Your task to perform on an android device: Add "usb-b" to the cart on ebay.com, then select checkout. Image 0: 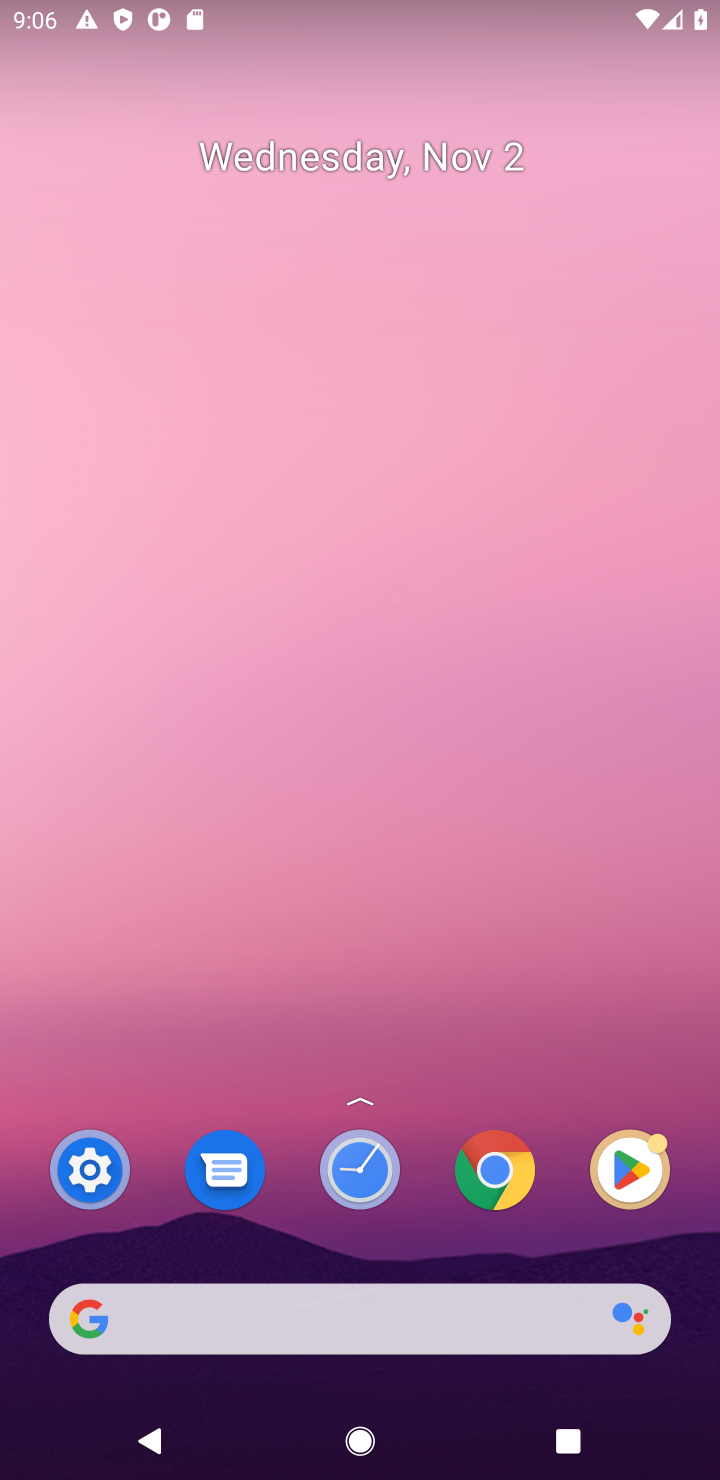
Step 0: click (521, 1186)
Your task to perform on an android device: Add "usb-b" to the cart on ebay.com, then select checkout. Image 1: 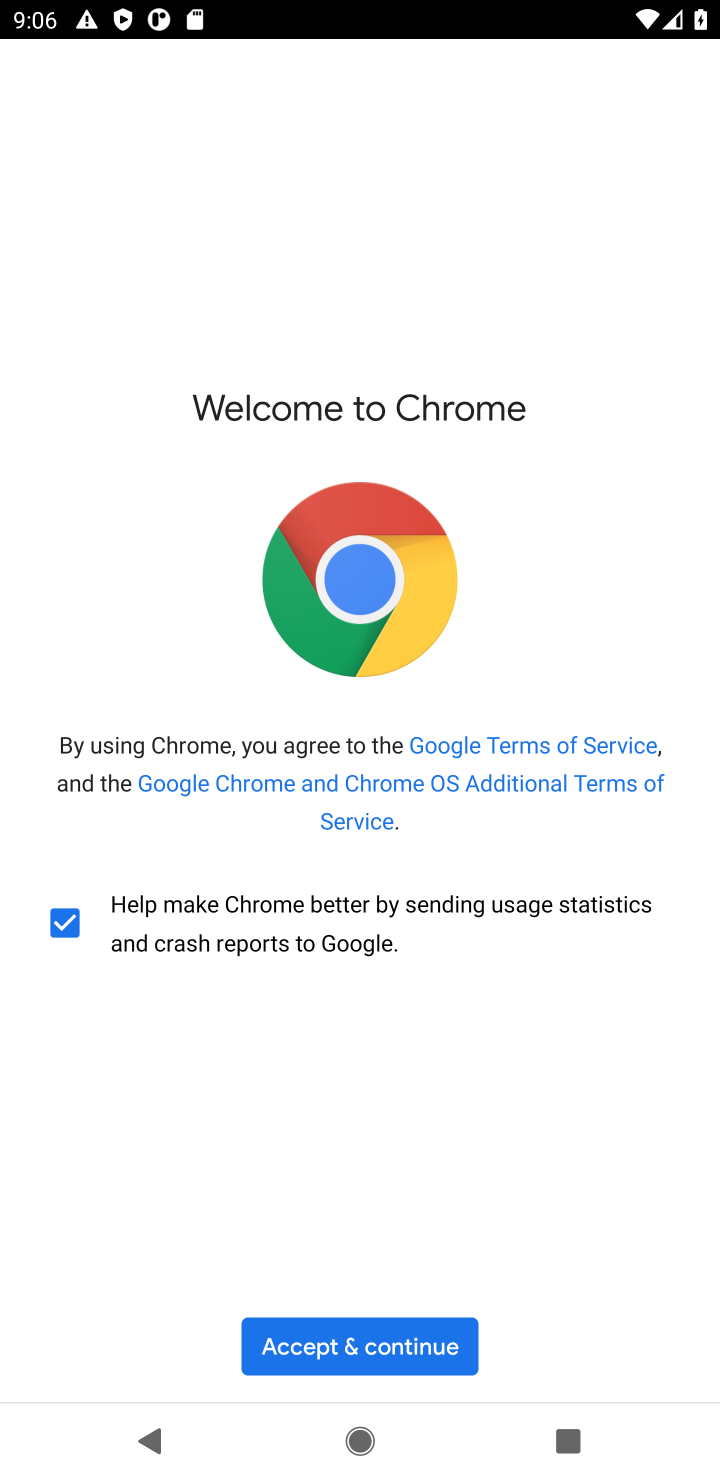
Step 1: click (390, 1361)
Your task to perform on an android device: Add "usb-b" to the cart on ebay.com, then select checkout. Image 2: 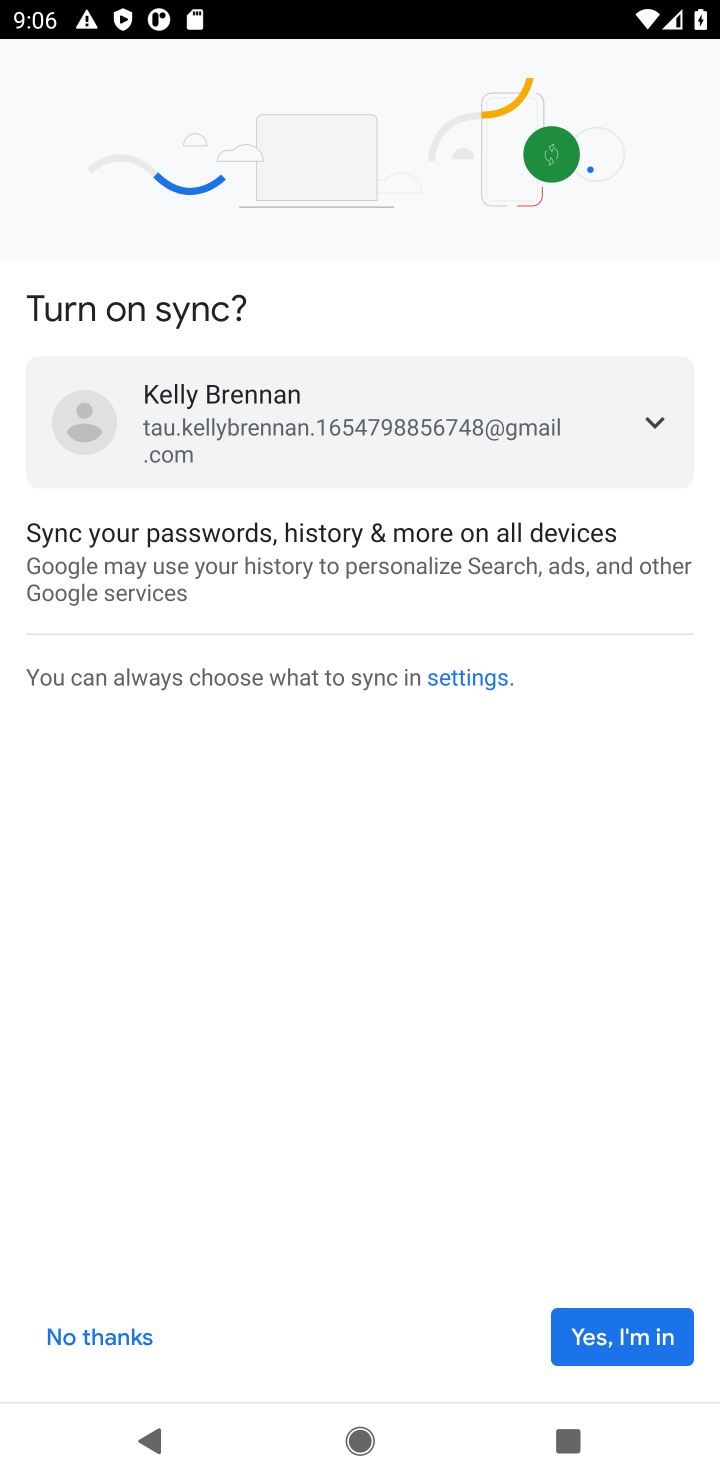
Step 2: click (621, 1337)
Your task to perform on an android device: Add "usb-b" to the cart on ebay.com, then select checkout. Image 3: 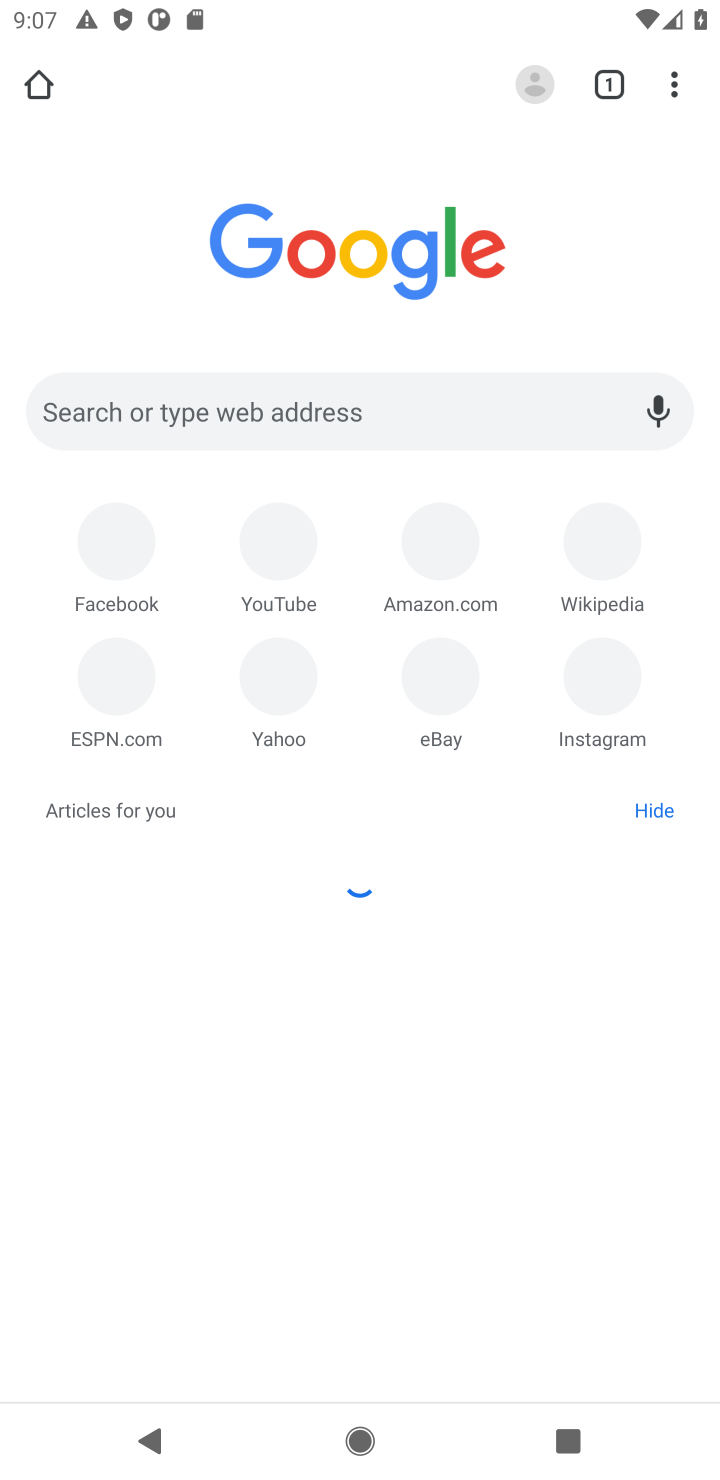
Step 3: click (393, 409)
Your task to perform on an android device: Add "usb-b" to the cart on ebay.com, then select checkout. Image 4: 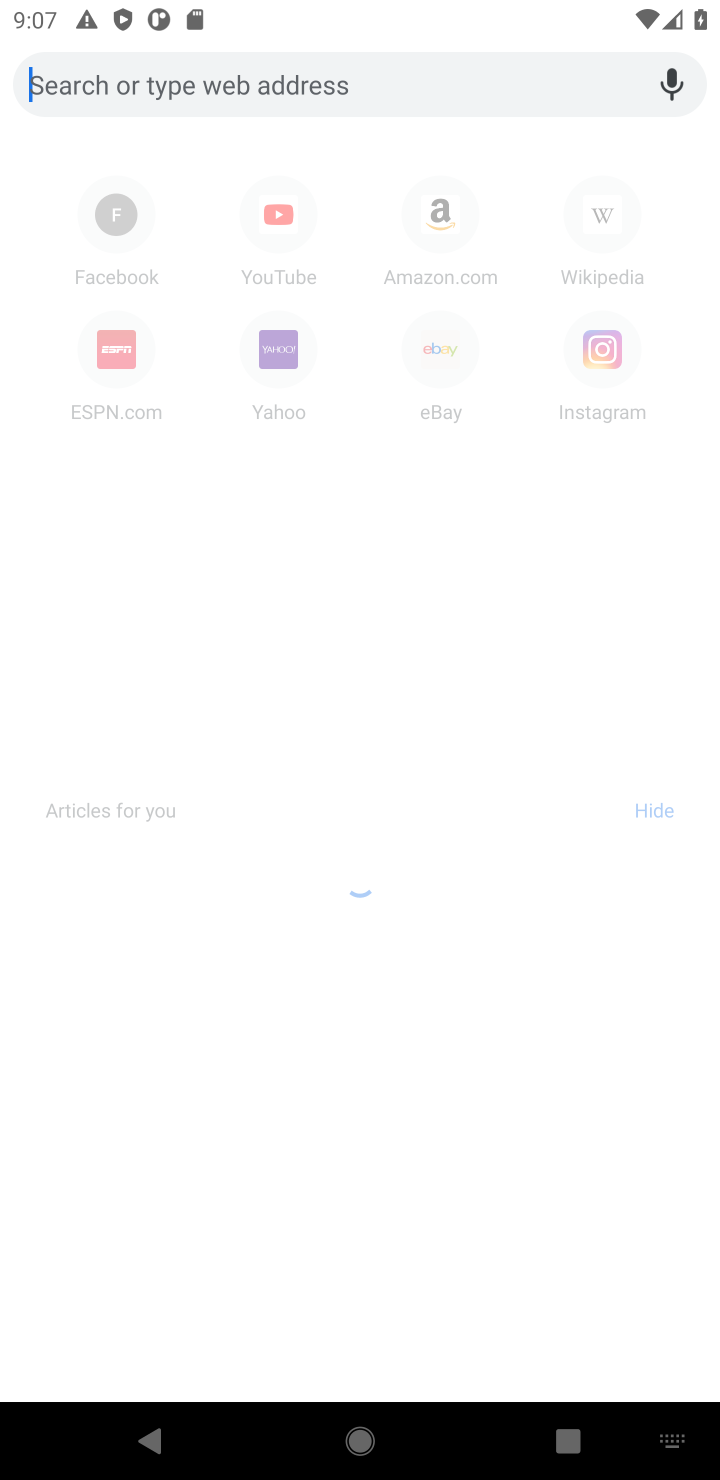
Step 4: type "ebay.com"
Your task to perform on an android device: Add "usb-b" to the cart on ebay.com, then select checkout. Image 5: 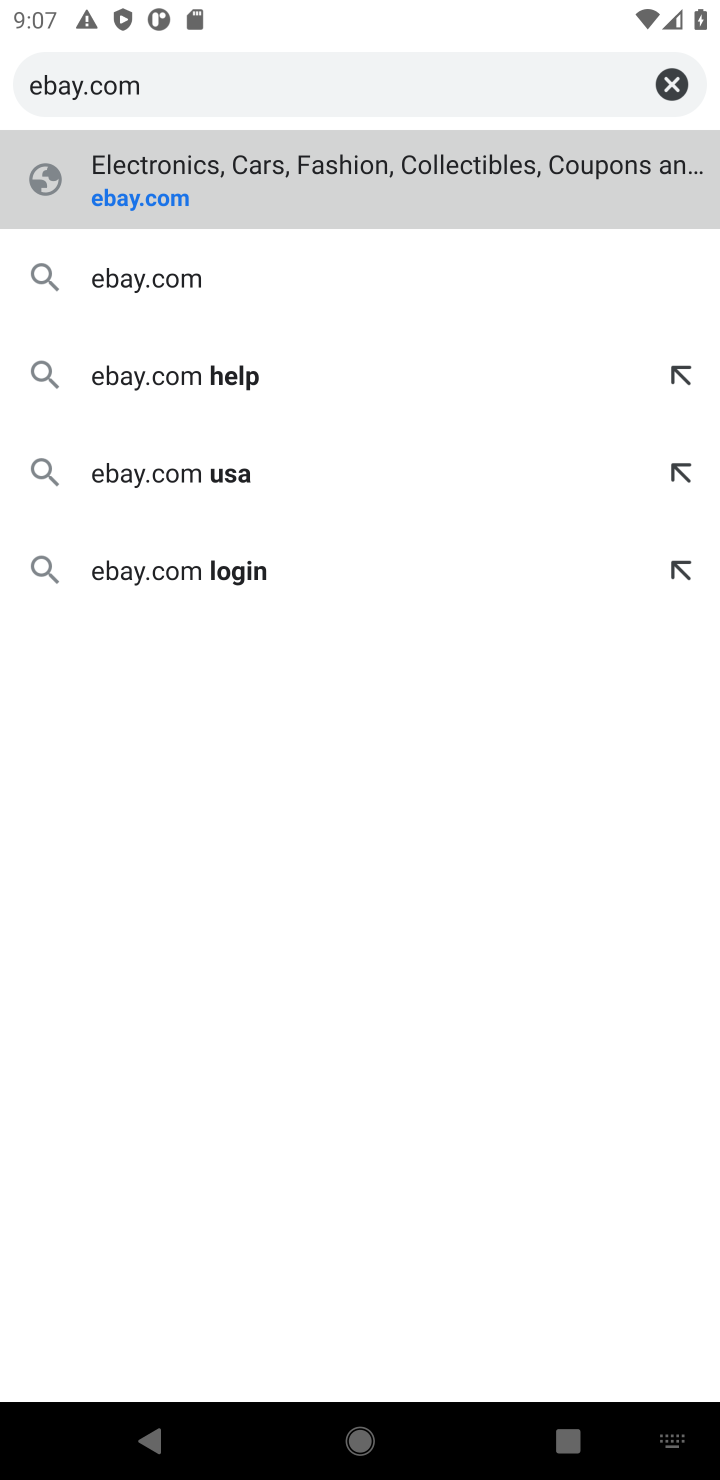
Step 5: press enter
Your task to perform on an android device: Add "usb-b" to the cart on ebay.com, then select checkout. Image 6: 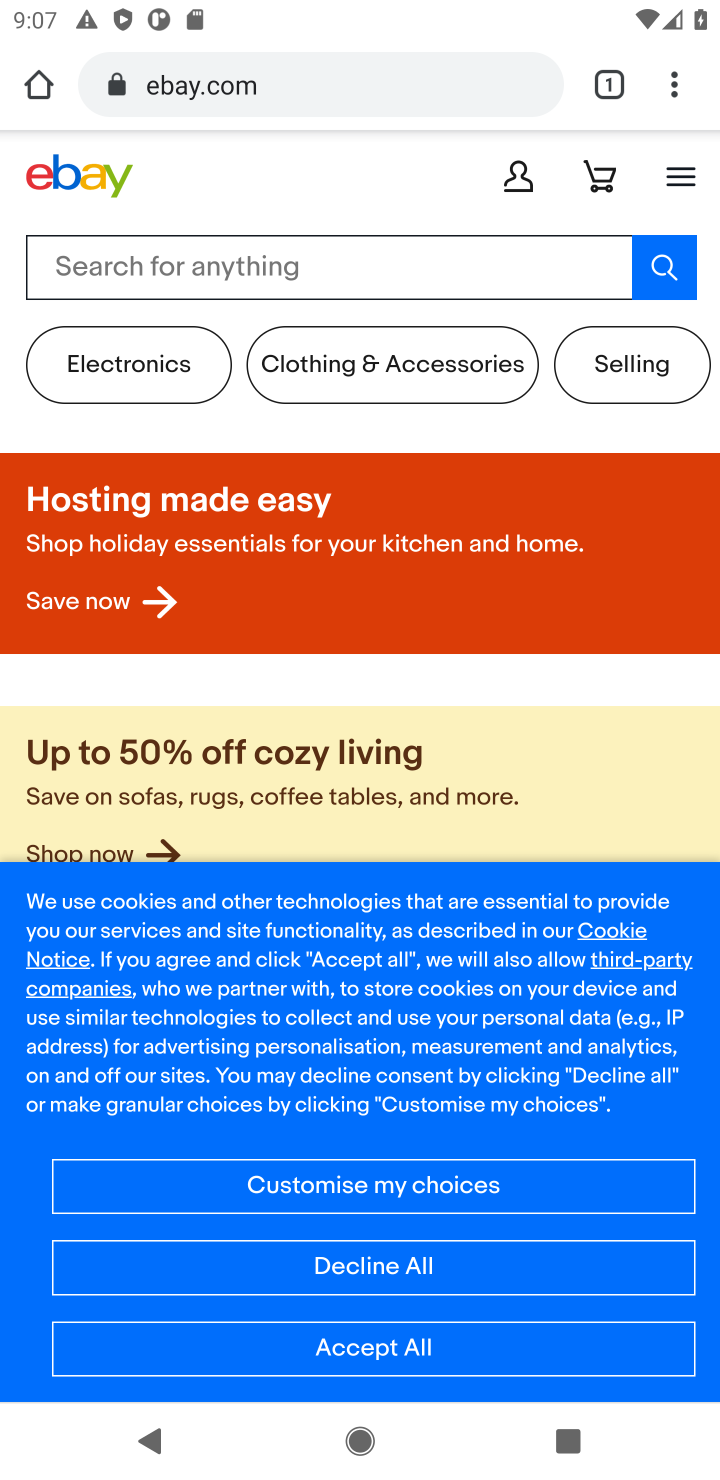
Step 6: click (421, 1342)
Your task to perform on an android device: Add "usb-b" to the cart on ebay.com, then select checkout. Image 7: 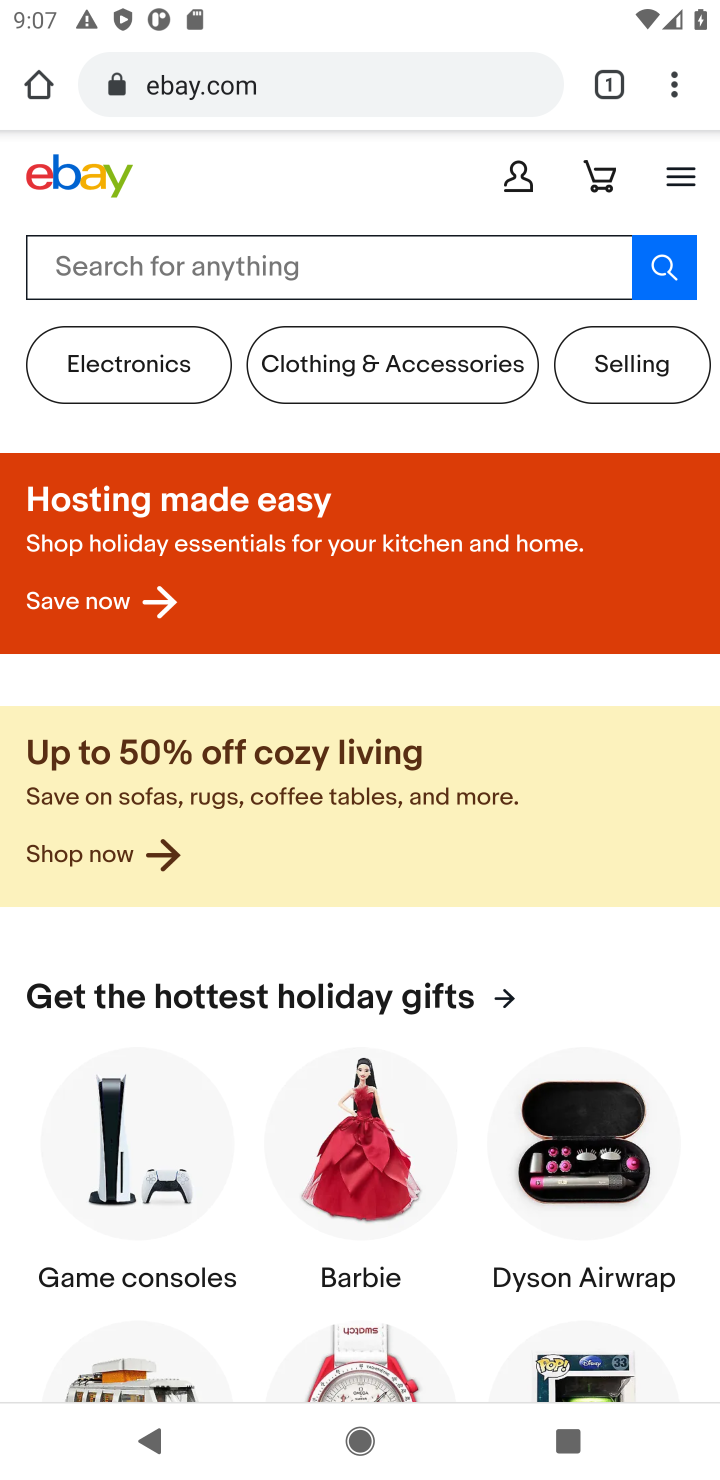
Step 7: click (411, 277)
Your task to perform on an android device: Add "usb-b" to the cart on ebay.com, then select checkout. Image 8: 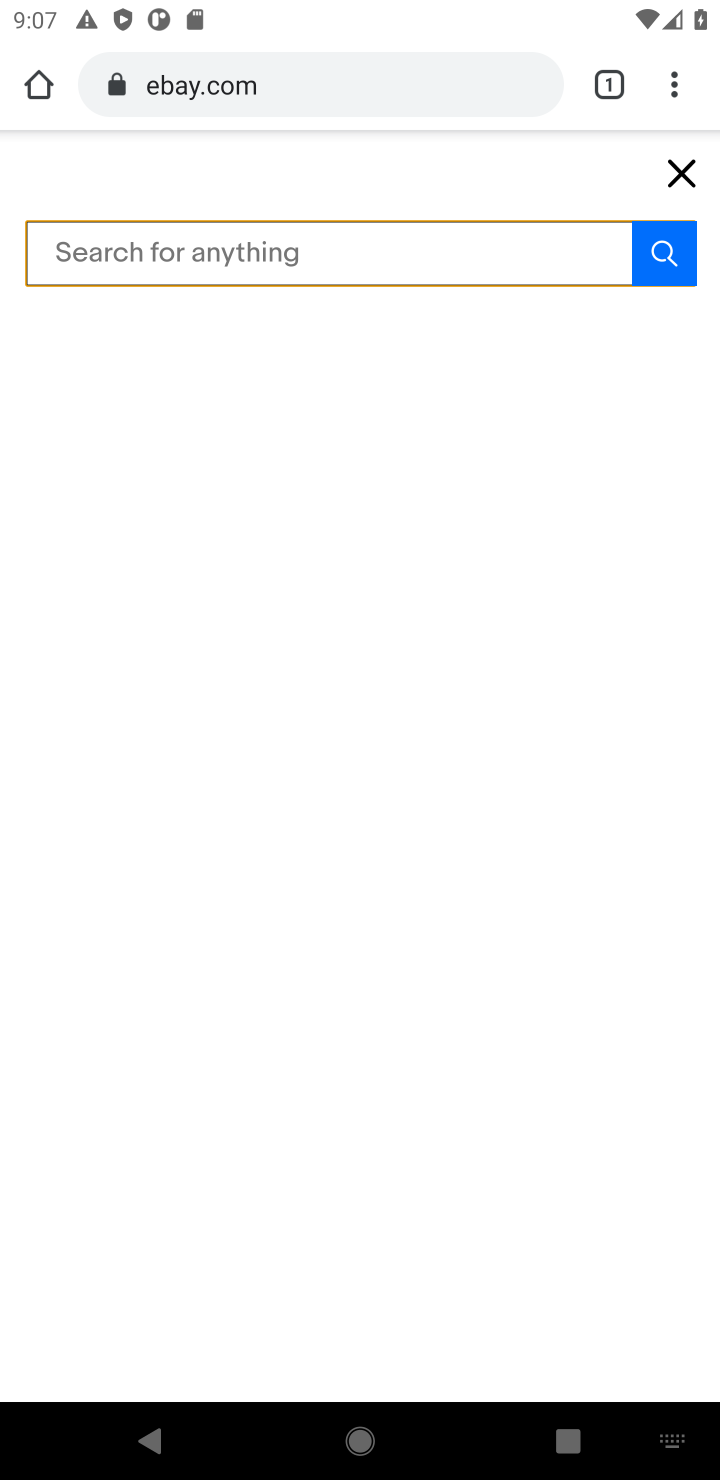
Step 8: type "usb-b"
Your task to perform on an android device: Add "usb-b" to the cart on ebay.com, then select checkout. Image 9: 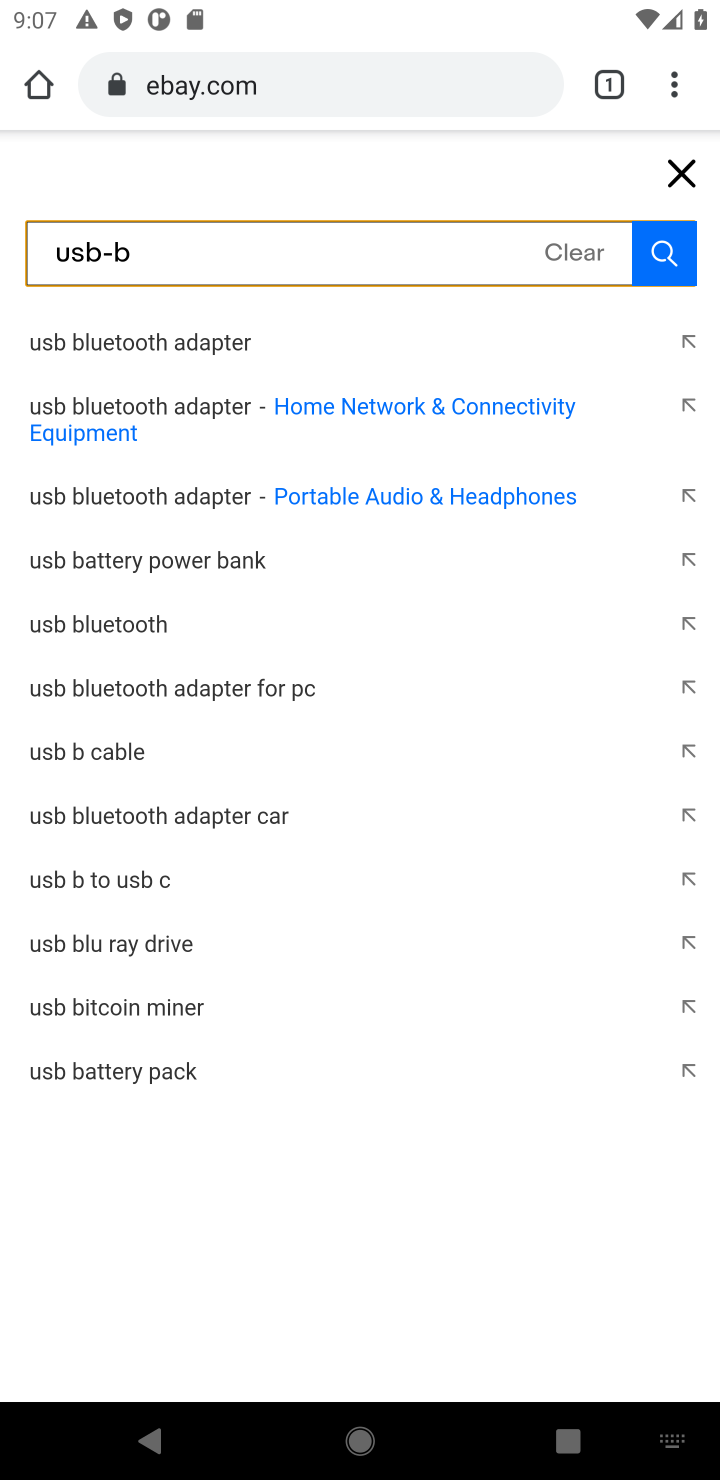
Step 9: click (649, 253)
Your task to perform on an android device: Add "usb-b" to the cart on ebay.com, then select checkout. Image 10: 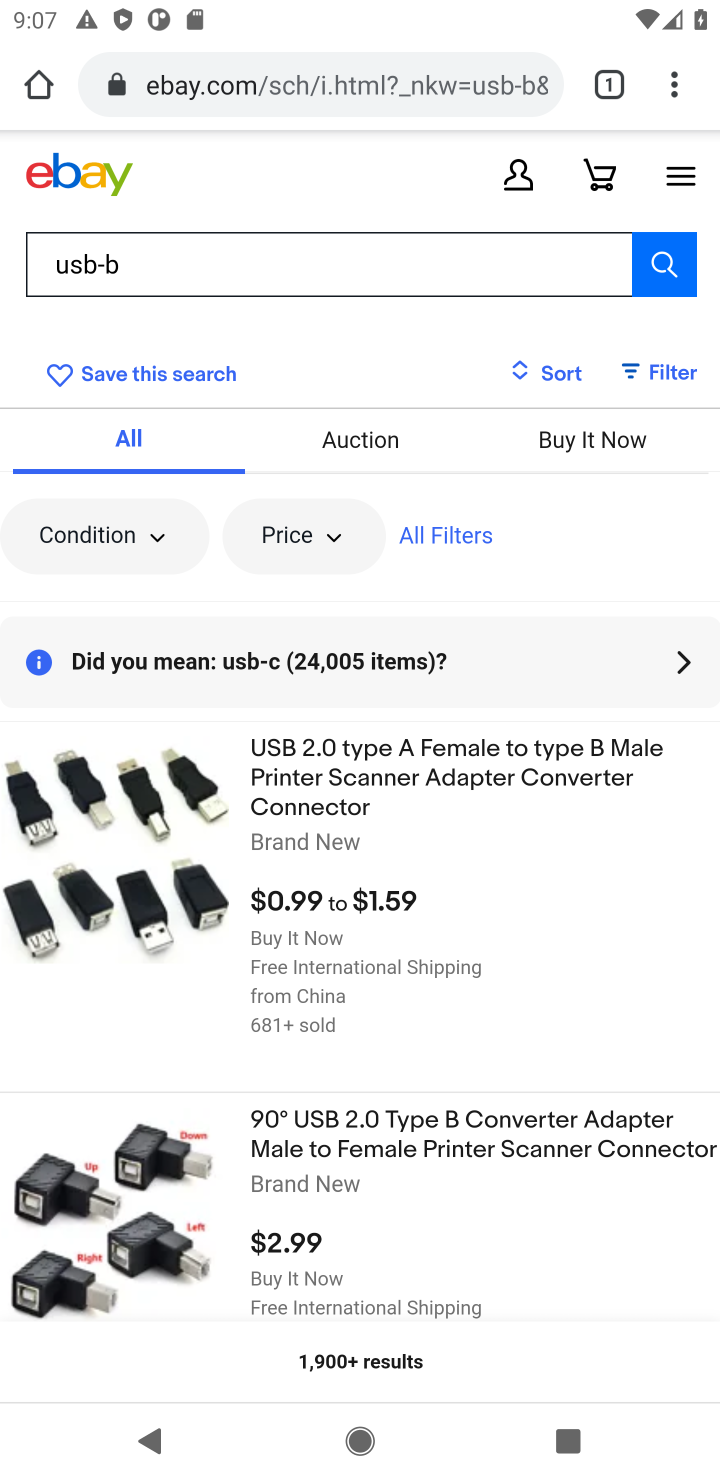
Step 10: click (384, 781)
Your task to perform on an android device: Add "usb-b" to the cart on ebay.com, then select checkout. Image 11: 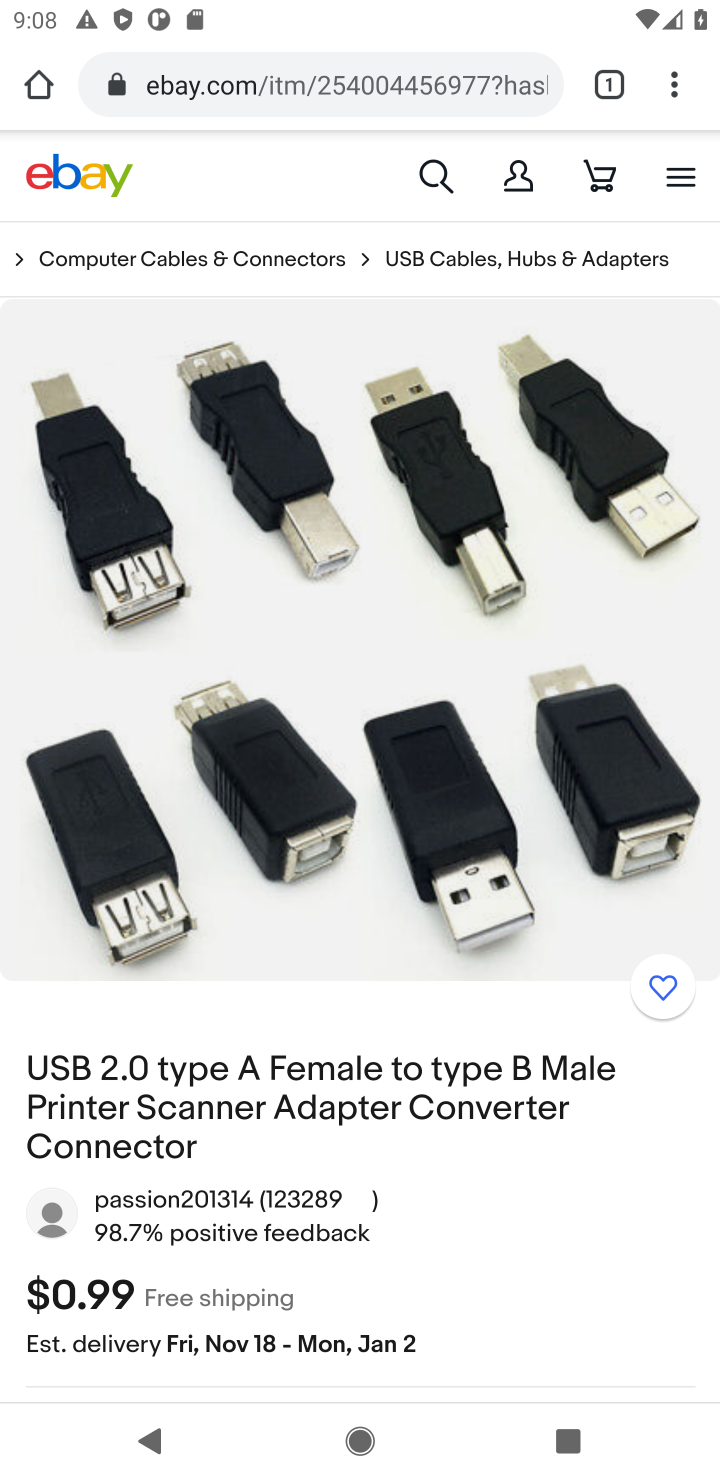
Step 11: drag from (380, 1156) to (377, 365)
Your task to perform on an android device: Add "usb-b" to the cart on ebay.com, then select checkout. Image 12: 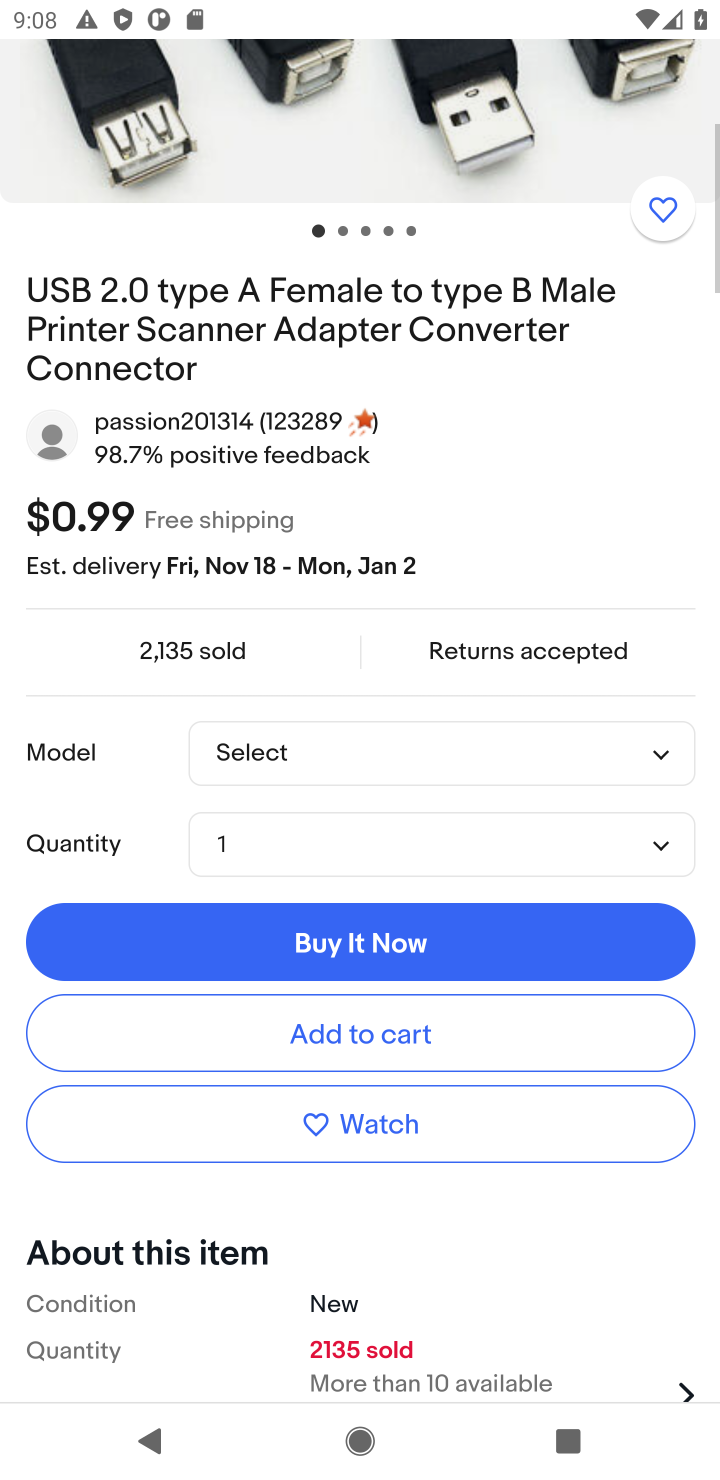
Step 12: click (317, 1084)
Your task to perform on an android device: Add "usb-b" to the cart on ebay.com, then select checkout. Image 13: 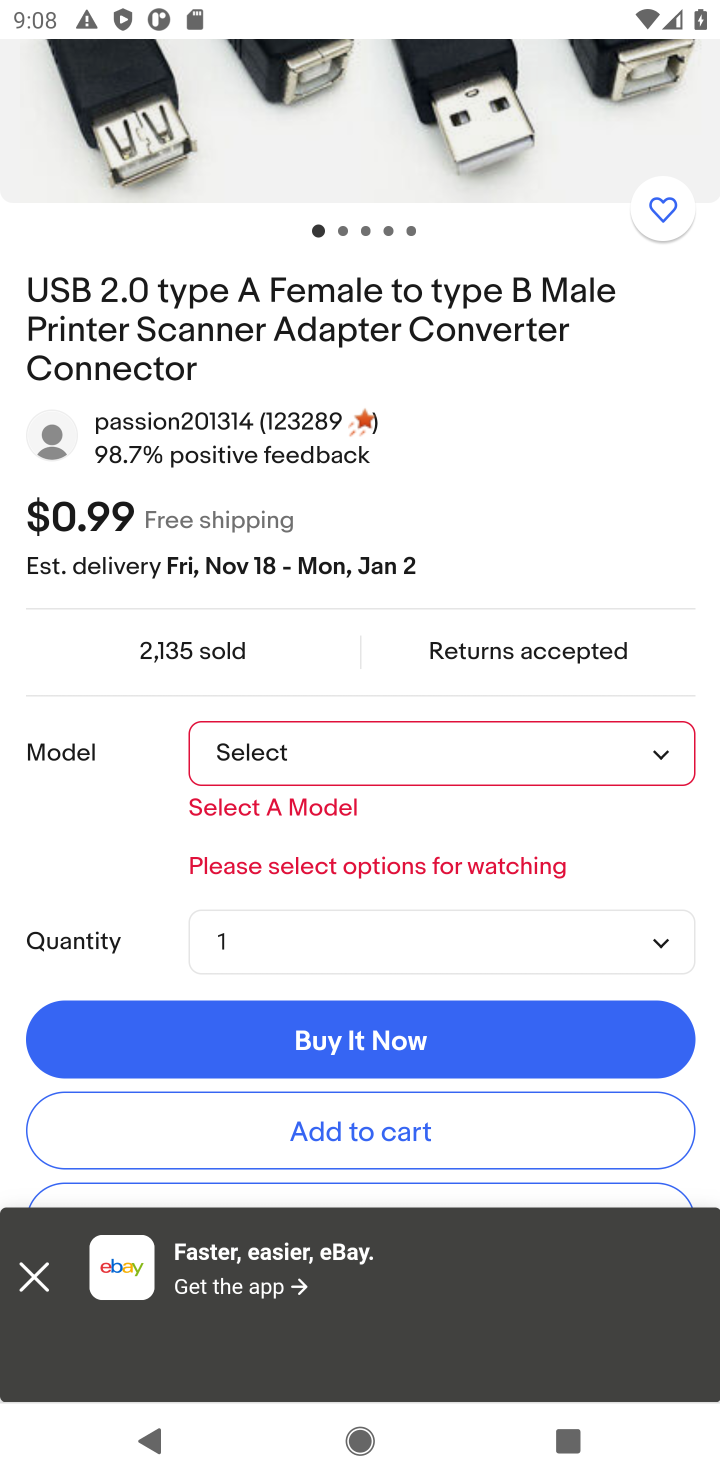
Step 13: click (539, 757)
Your task to perform on an android device: Add "usb-b" to the cart on ebay.com, then select checkout. Image 14: 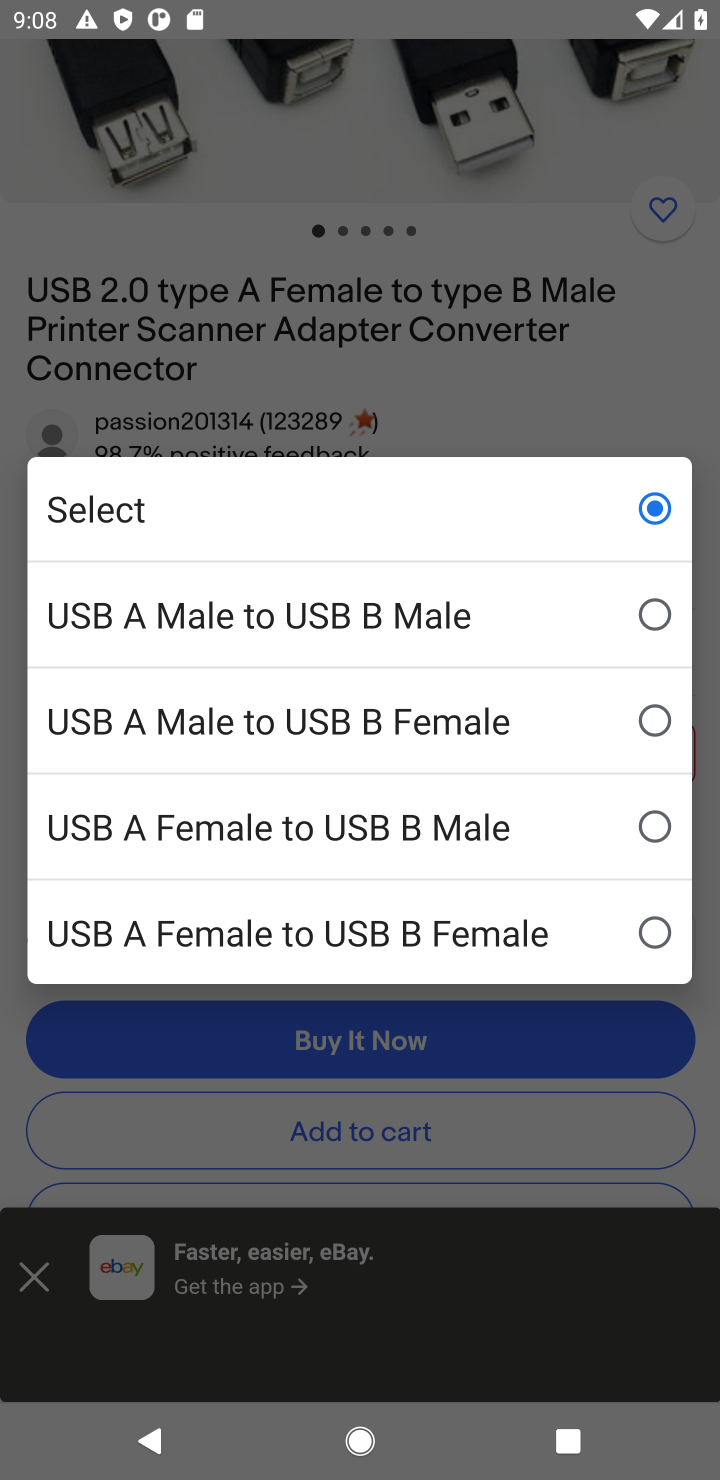
Step 14: click (440, 639)
Your task to perform on an android device: Add "usb-b" to the cart on ebay.com, then select checkout. Image 15: 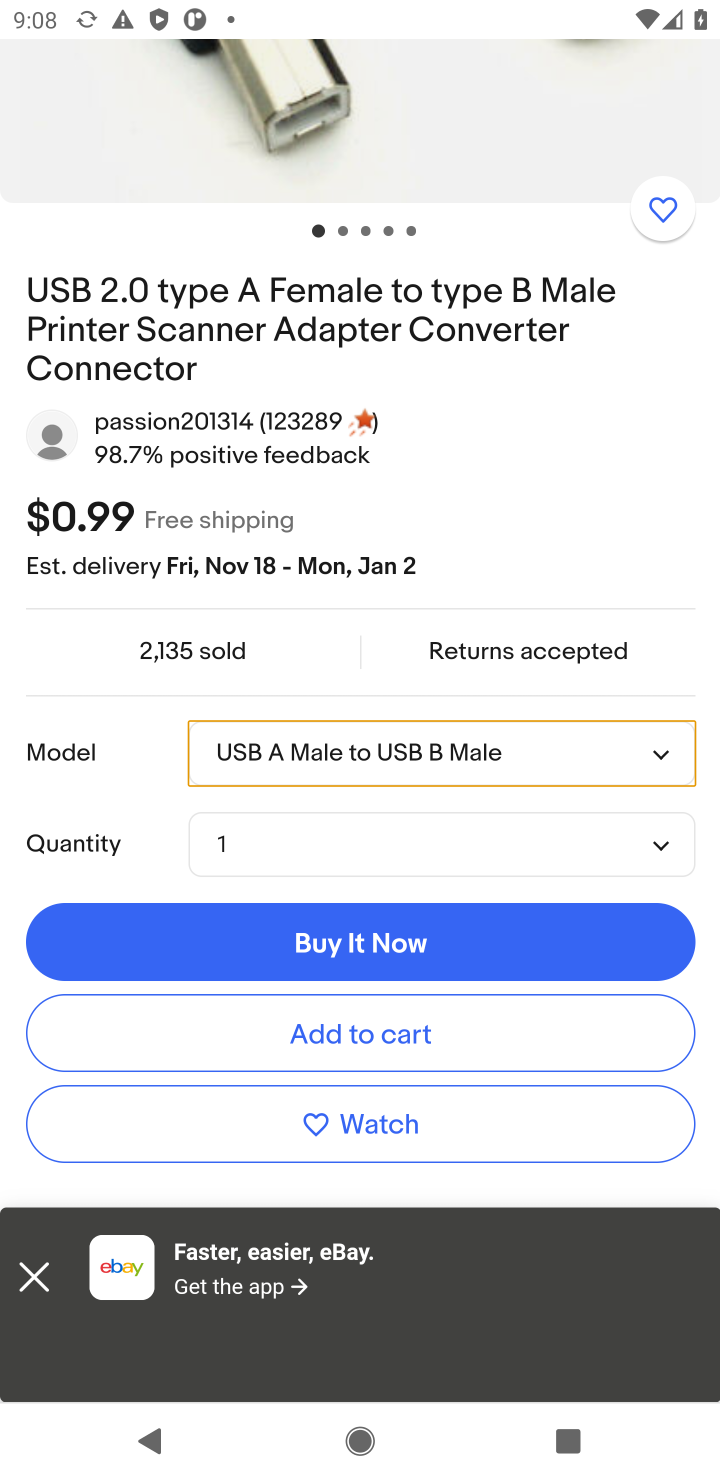
Step 15: click (439, 1033)
Your task to perform on an android device: Add "usb-b" to the cart on ebay.com, then select checkout. Image 16: 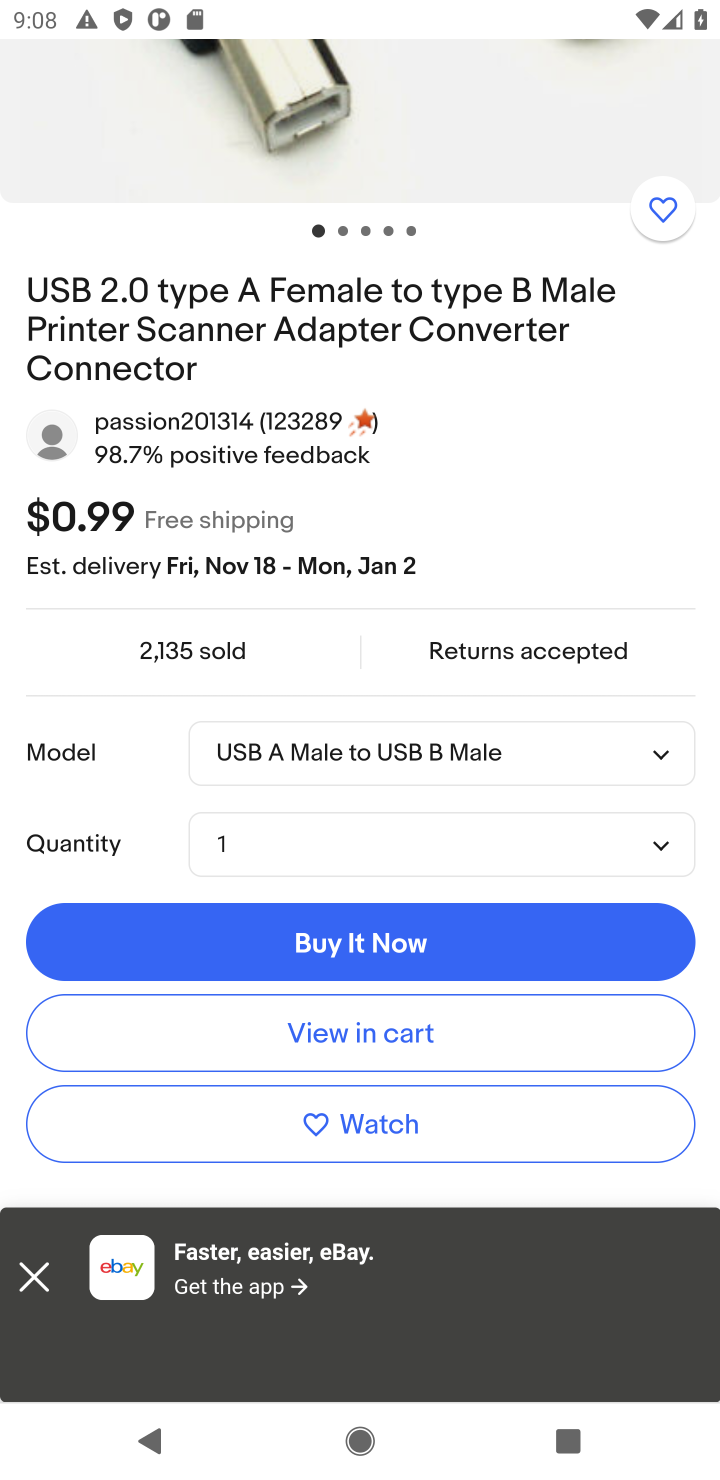
Step 16: click (407, 1027)
Your task to perform on an android device: Add "usb-b" to the cart on ebay.com, then select checkout. Image 17: 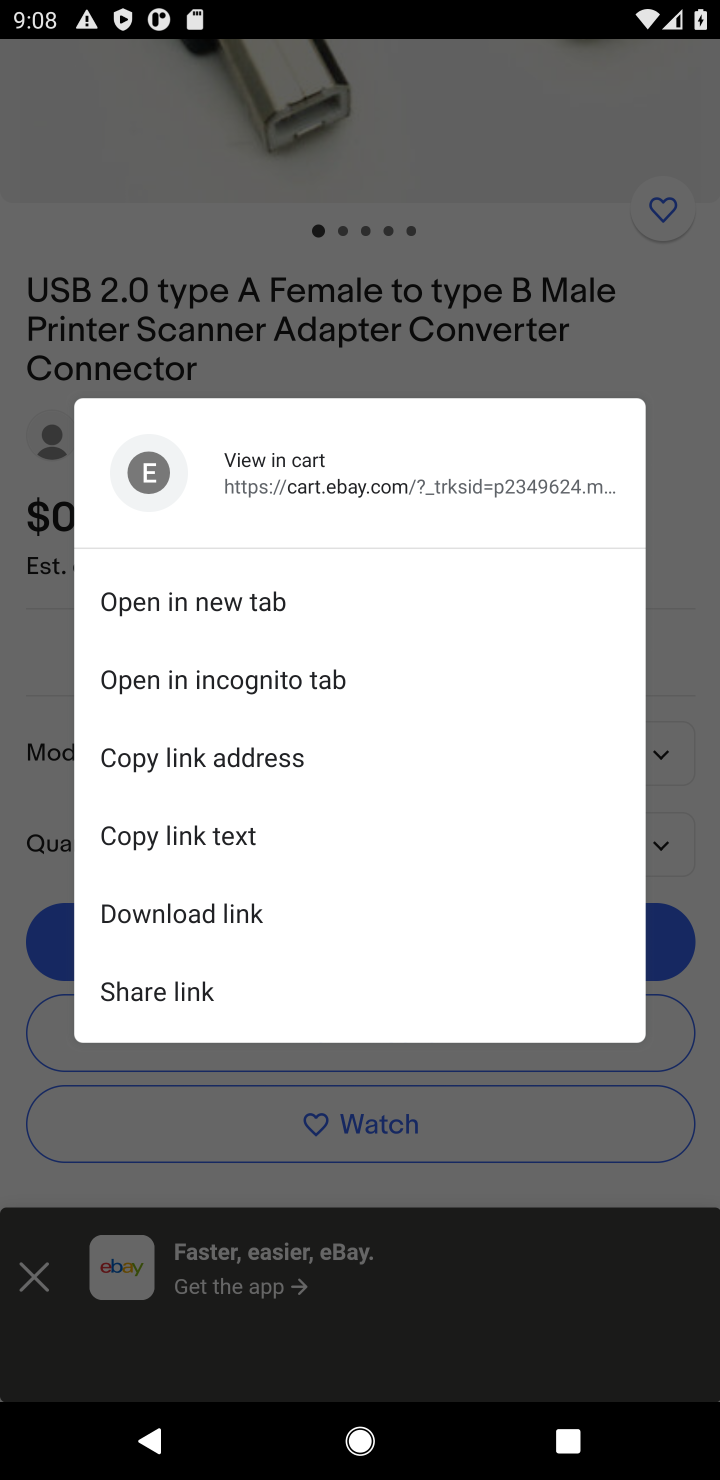
Step 17: click (692, 833)
Your task to perform on an android device: Add "usb-b" to the cart on ebay.com, then select checkout. Image 18: 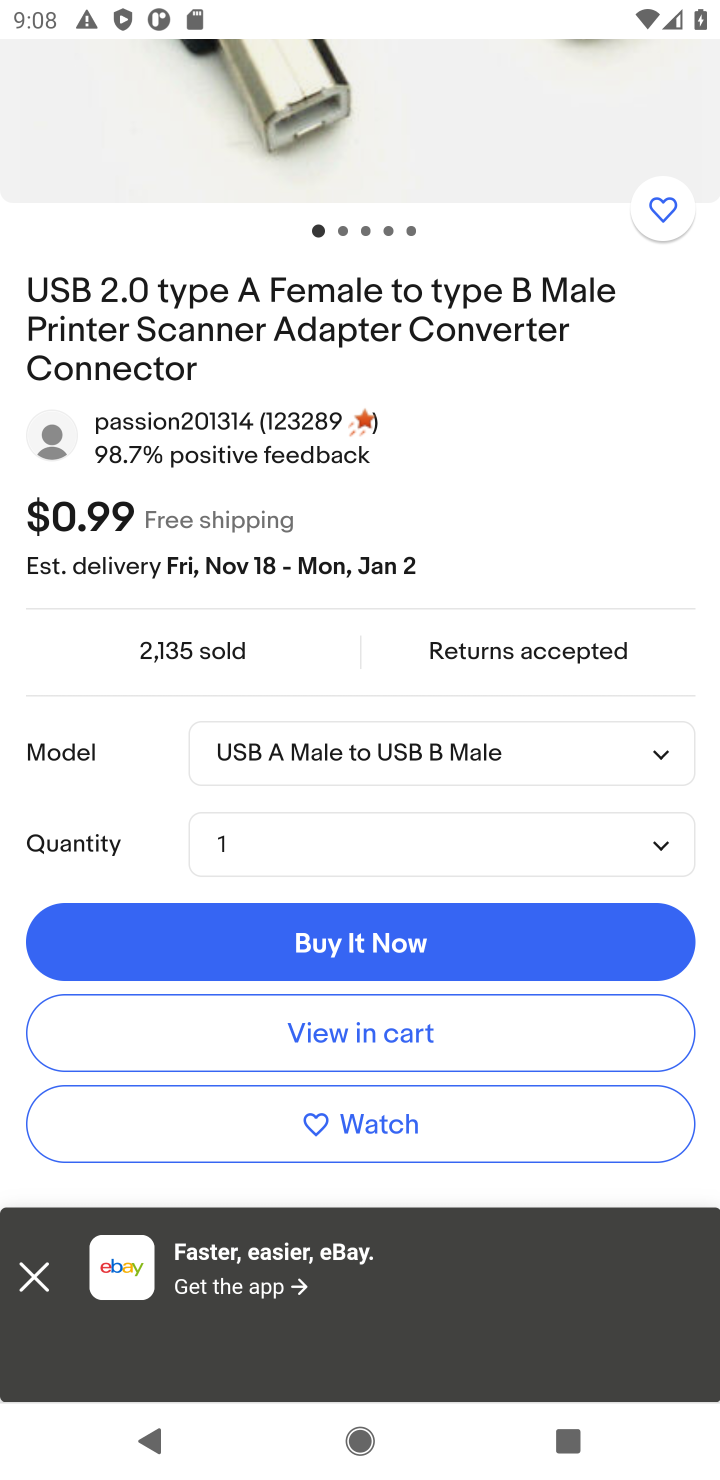
Step 18: click (359, 1026)
Your task to perform on an android device: Add "usb-b" to the cart on ebay.com, then select checkout. Image 19: 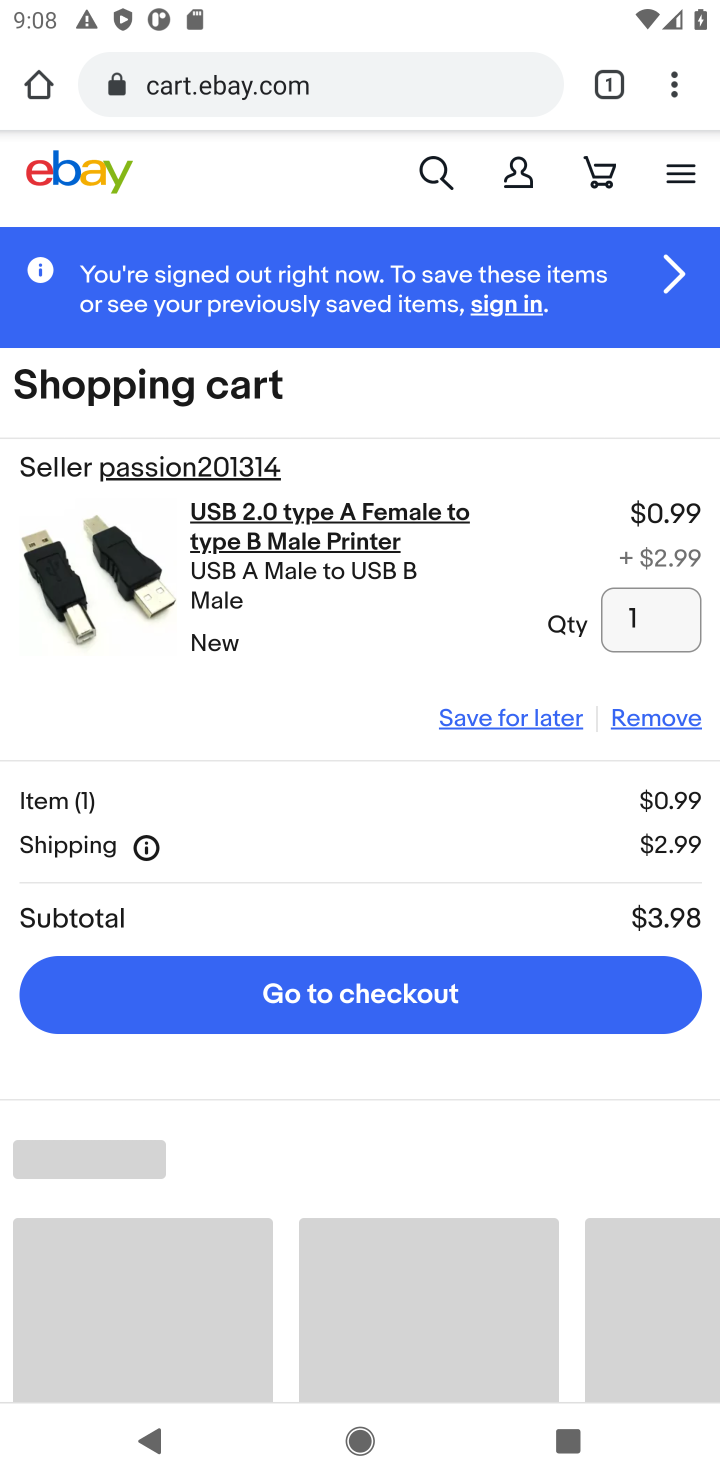
Step 19: click (423, 993)
Your task to perform on an android device: Add "usb-b" to the cart on ebay.com, then select checkout. Image 20: 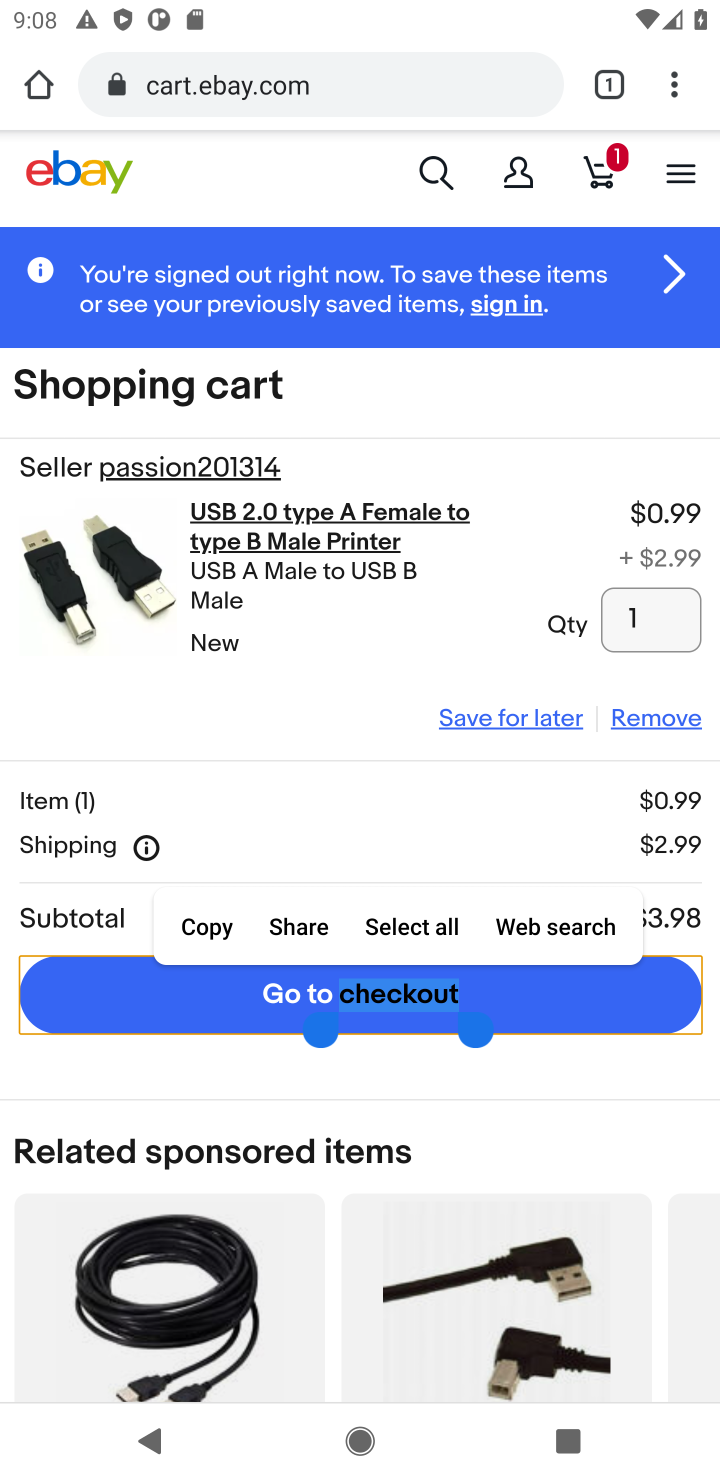
Step 20: click (523, 1002)
Your task to perform on an android device: Add "usb-b" to the cart on ebay.com, then select checkout. Image 21: 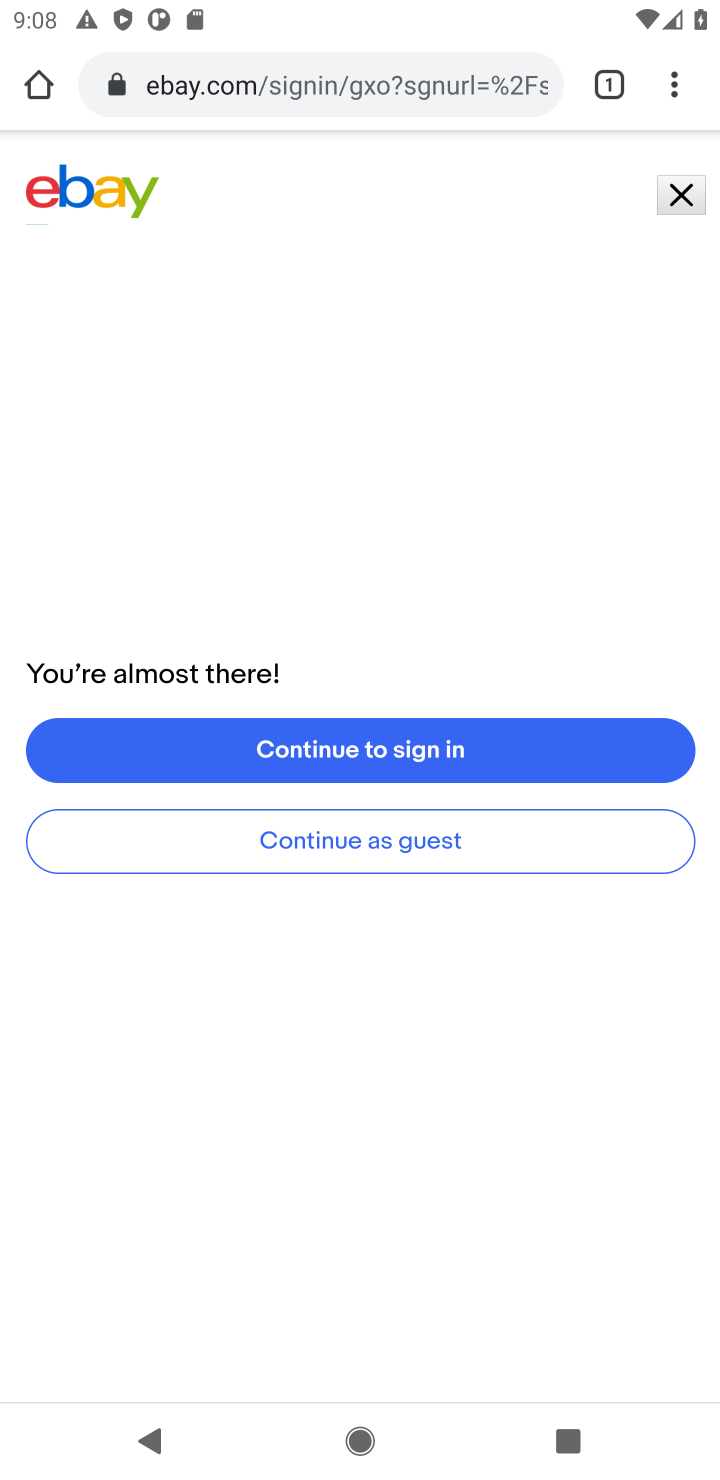
Step 21: click (457, 835)
Your task to perform on an android device: Add "usb-b" to the cart on ebay.com, then select checkout. Image 22: 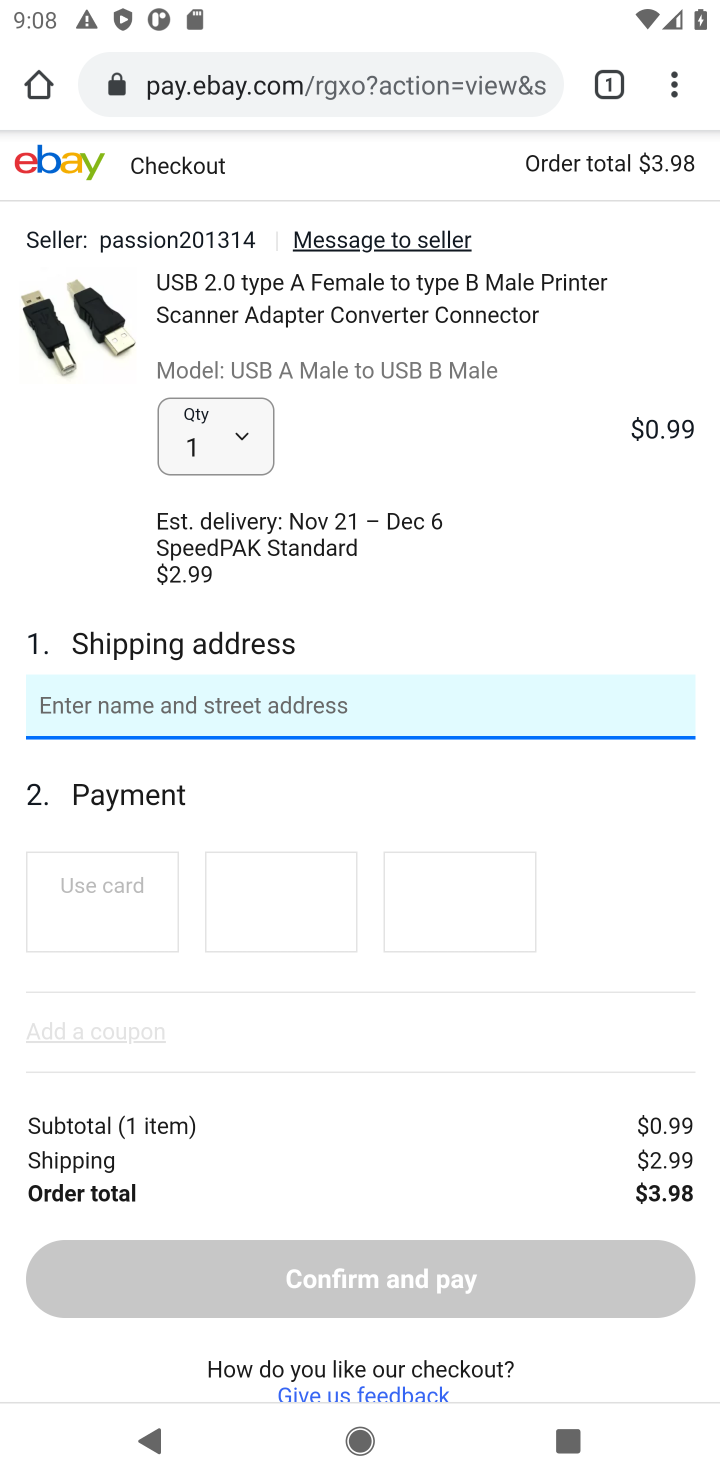
Step 22: task complete